Your task to perform on an android device: open sync settings in chrome Image 0: 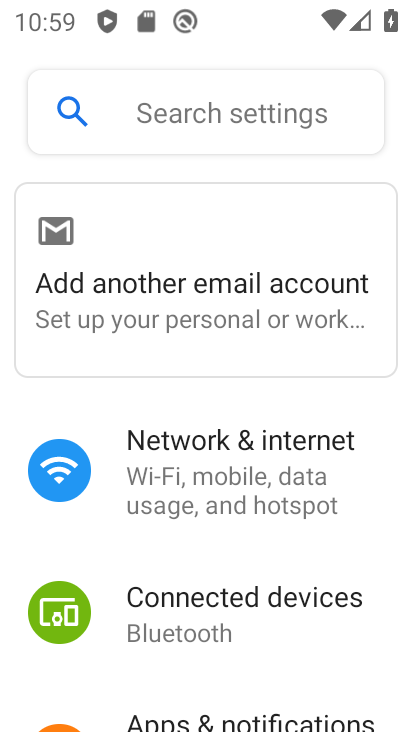
Step 0: press home button
Your task to perform on an android device: open sync settings in chrome Image 1: 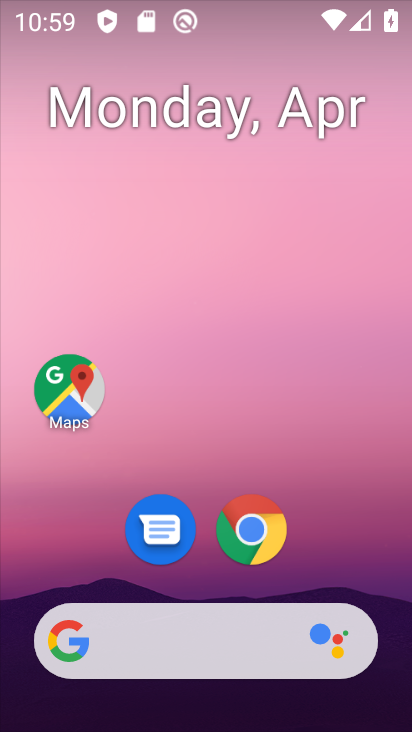
Step 1: drag from (384, 596) to (213, 25)
Your task to perform on an android device: open sync settings in chrome Image 2: 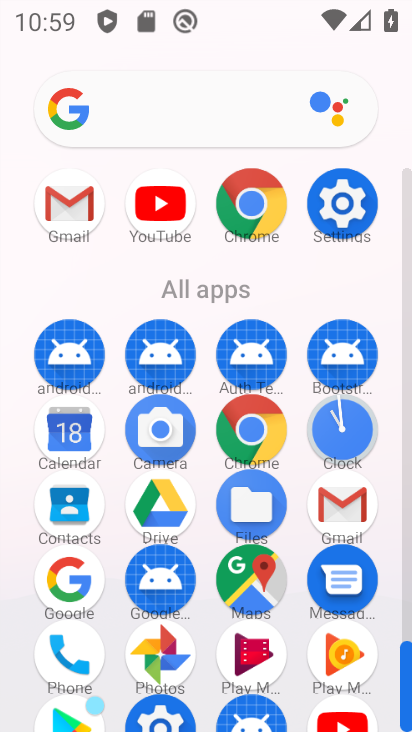
Step 2: click (263, 443)
Your task to perform on an android device: open sync settings in chrome Image 3: 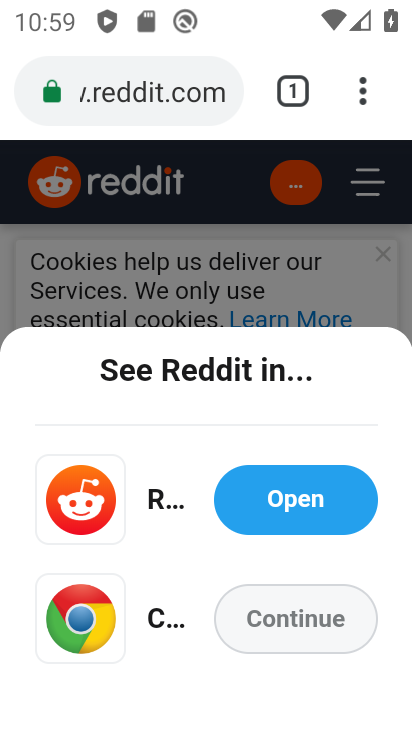
Step 3: press back button
Your task to perform on an android device: open sync settings in chrome Image 4: 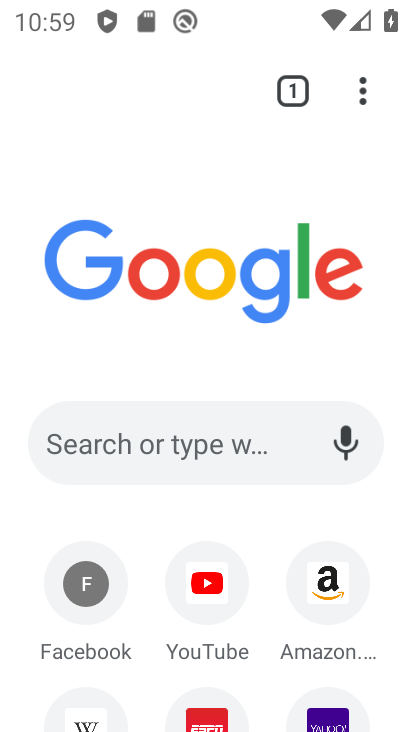
Step 4: click (360, 87)
Your task to perform on an android device: open sync settings in chrome Image 5: 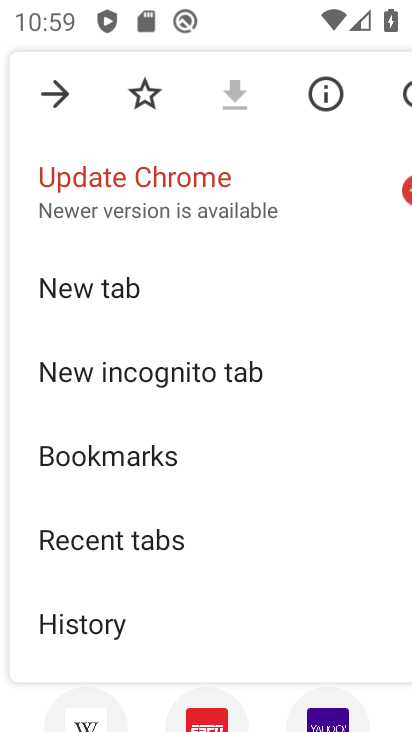
Step 5: drag from (130, 605) to (138, 182)
Your task to perform on an android device: open sync settings in chrome Image 6: 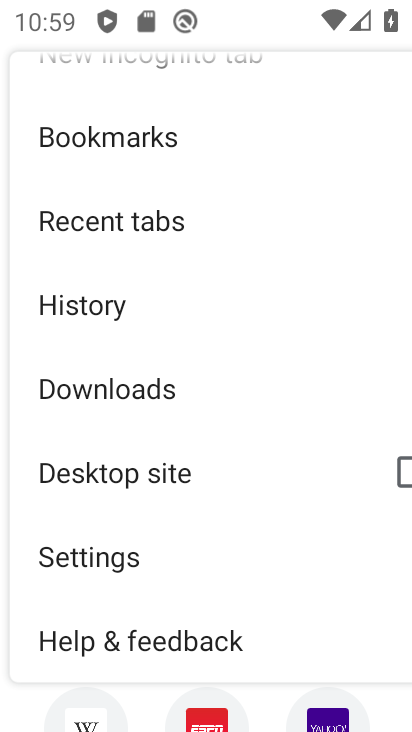
Step 6: click (110, 558)
Your task to perform on an android device: open sync settings in chrome Image 7: 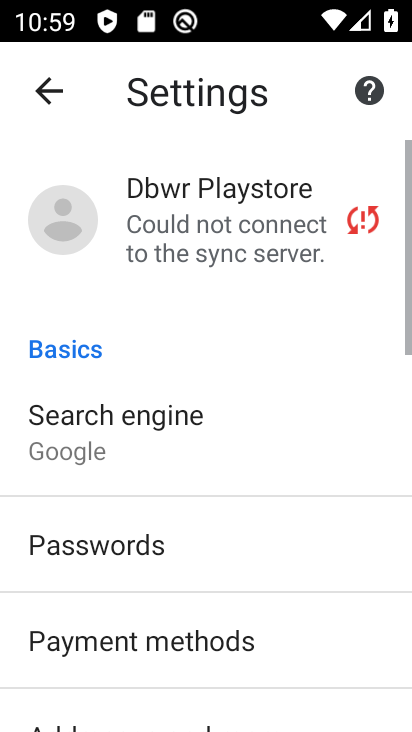
Step 7: drag from (120, 601) to (149, 77)
Your task to perform on an android device: open sync settings in chrome Image 8: 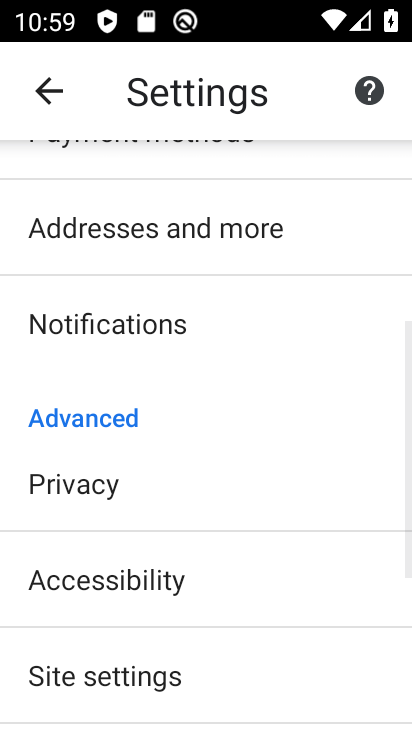
Step 8: drag from (119, 589) to (147, 201)
Your task to perform on an android device: open sync settings in chrome Image 9: 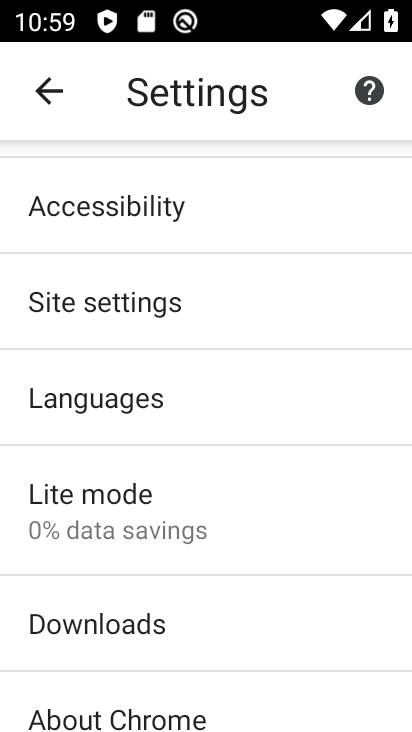
Step 9: click (24, 306)
Your task to perform on an android device: open sync settings in chrome Image 10: 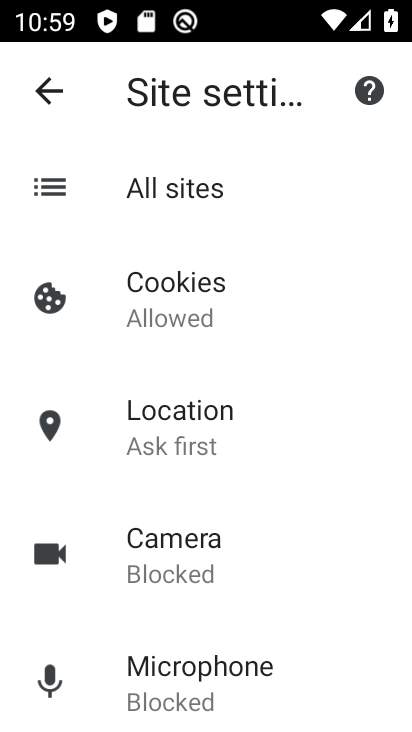
Step 10: drag from (196, 643) to (229, 187)
Your task to perform on an android device: open sync settings in chrome Image 11: 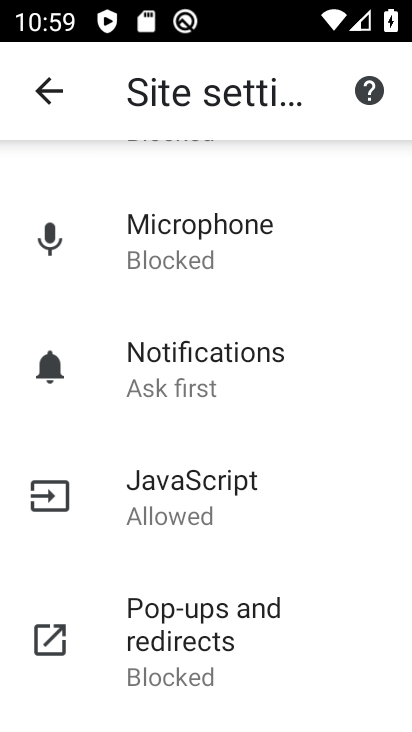
Step 11: drag from (174, 644) to (218, 195)
Your task to perform on an android device: open sync settings in chrome Image 12: 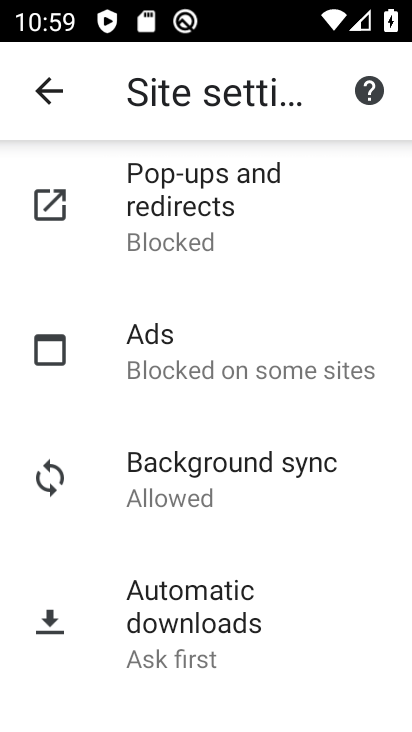
Step 12: click (290, 473)
Your task to perform on an android device: open sync settings in chrome Image 13: 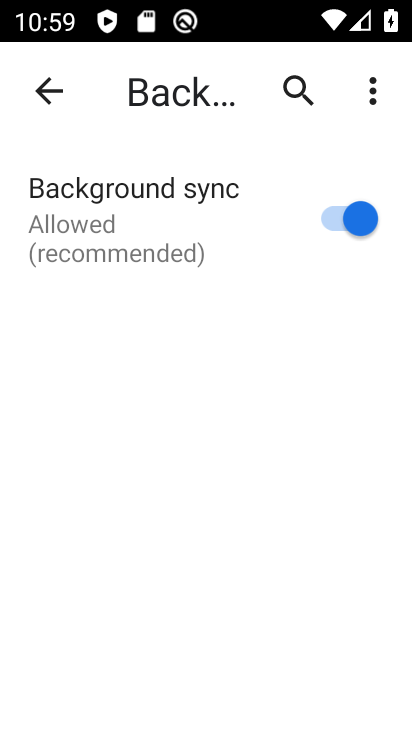
Step 13: task complete